Your task to perform on an android device: Open eBay Image 0: 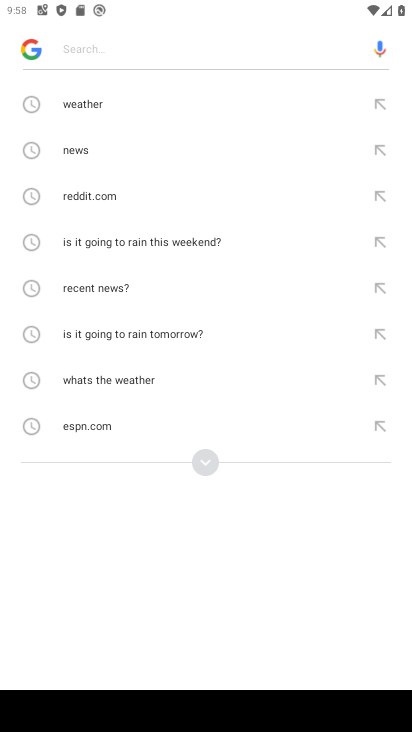
Step 0: press home button
Your task to perform on an android device: Open eBay Image 1: 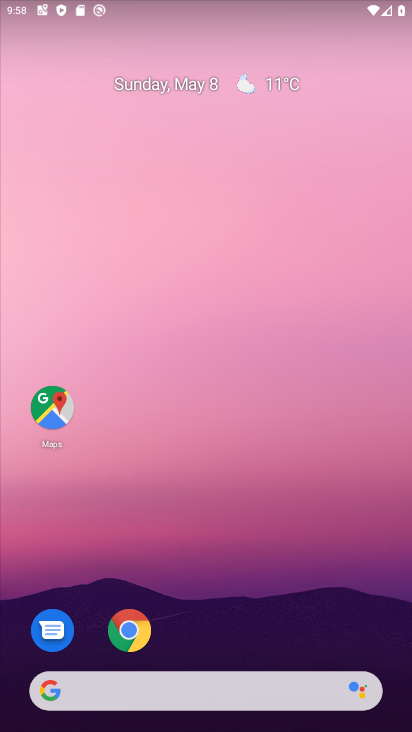
Step 1: drag from (372, 610) to (254, 58)
Your task to perform on an android device: Open eBay Image 2: 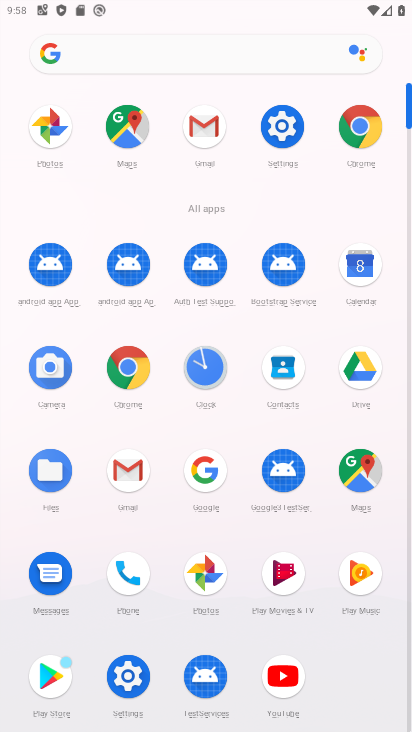
Step 2: click (359, 138)
Your task to perform on an android device: Open eBay Image 3: 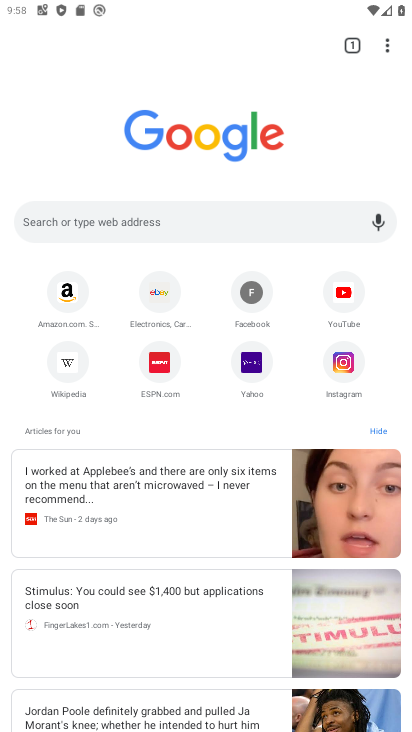
Step 3: click (161, 305)
Your task to perform on an android device: Open eBay Image 4: 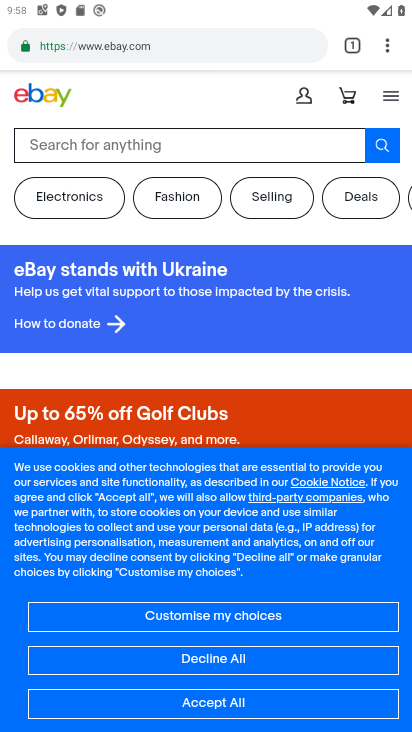
Step 4: task complete